Your task to perform on an android device: Is it going to rain this weekend? Image 0: 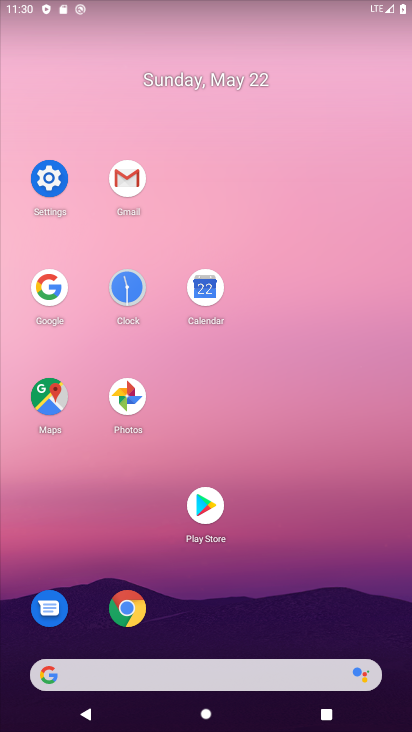
Step 0: click (55, 288)
Your task to perform on an android device: Is it going to rain this weekend? Image 1: 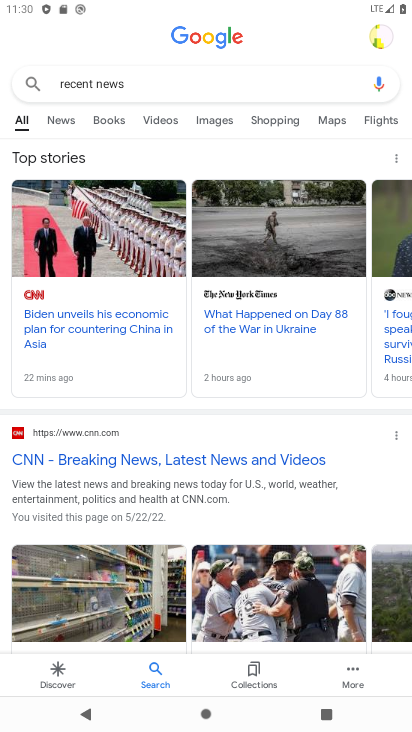
Step 1: click (196, 86)
Your task to perform on an android device: Is it going to rain this weekend? Image 2: 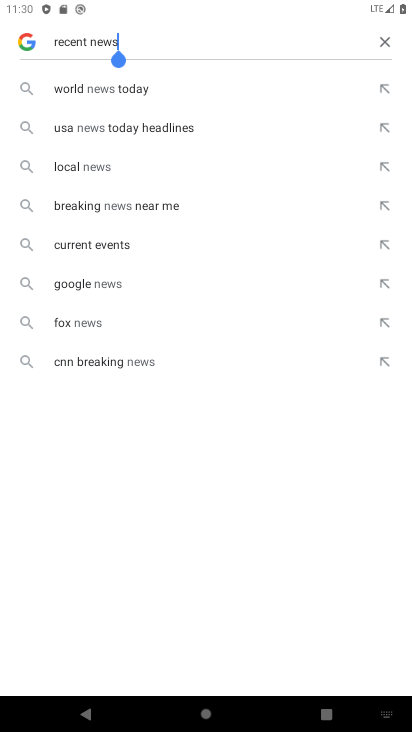
Step 2: click (392, 38)
Your task to perform on an android device: Is it going to rain this weekend? Image 3: 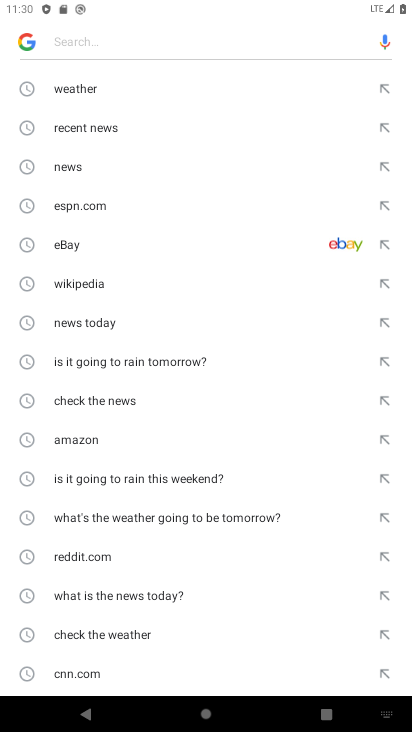
Step 3: click (90, 88)
Your task to perform on an android device: Is it going to rain this weekend? Image 4: 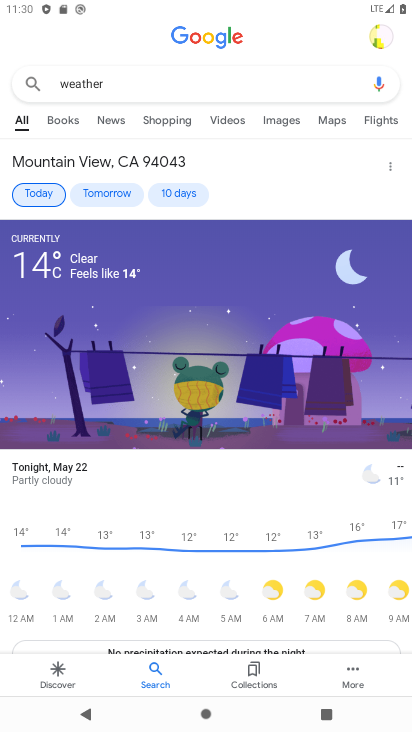
Step 4: click (183, 197)
Your task to perform on an android device: Is it going to rain this weekend? Image 5: 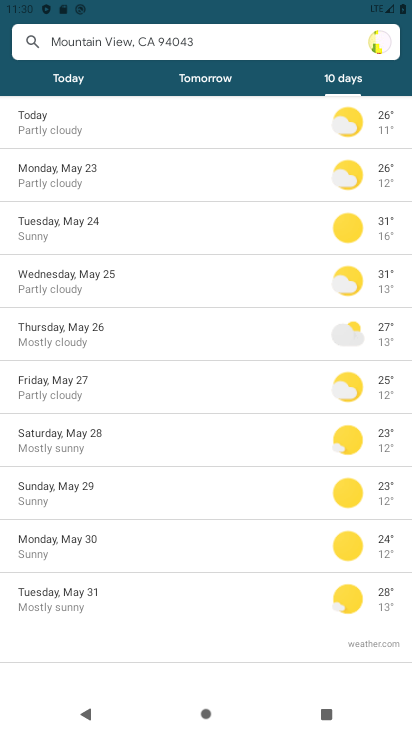
Step 5: click (94, 447)
Your task to perform on an android device: Is it going to rain this weekend? Image 6: 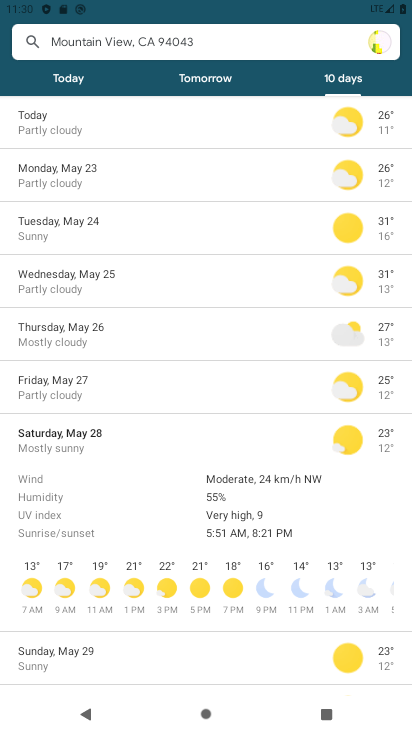
Step 6: task complete